Your task to perform on an android device: turn off notifications in google photos Image 0: 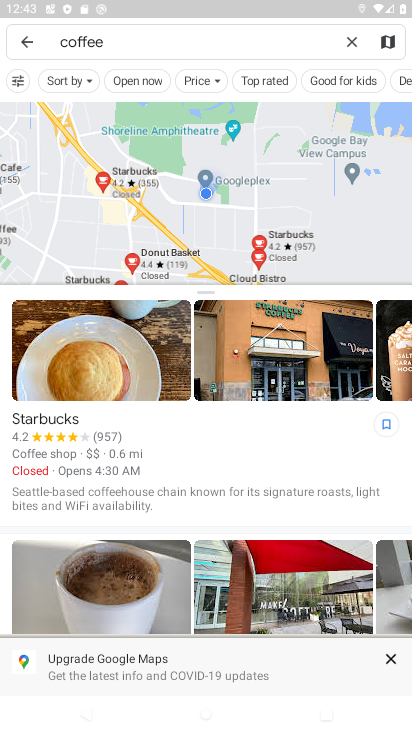
Step 0: press home button
Your task to perform on an android device: turn off notifications in google photos Image 1: 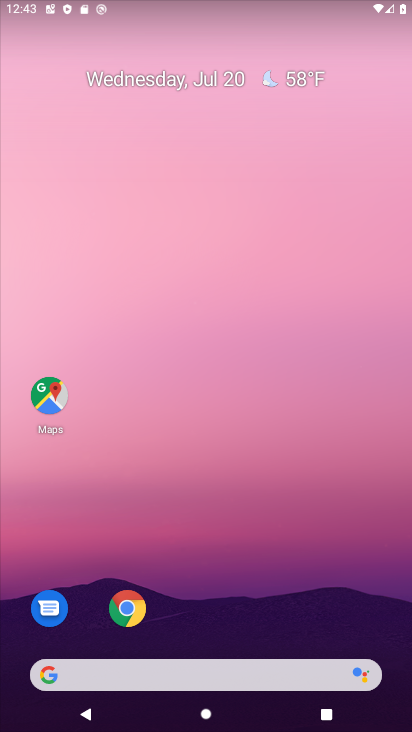
Step 1: drag from (205, 636) to (309, 130)
Your task to perform on an android device: turn off notifications in google photos Image 2: 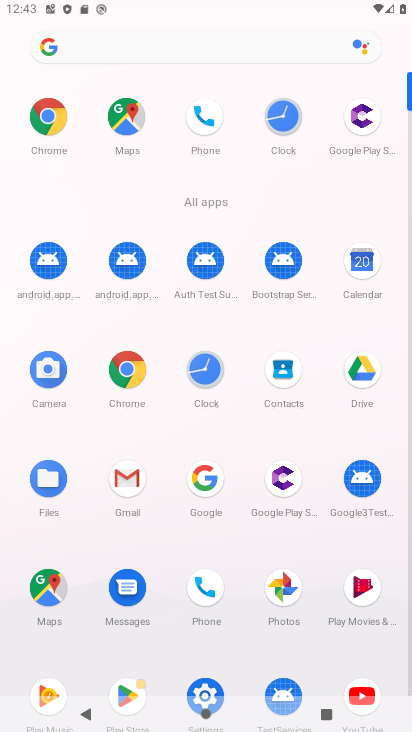
Step 2: drag from (255, 664) to (309, 330)
Your task to perform on an android device: turn off notifications in google photos Image 3: 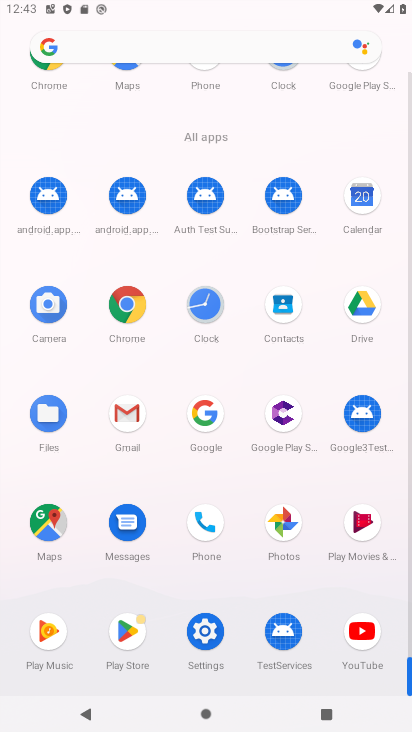
Step 3: click (284, 524)
Your task to perform on an android device: turn off notifications in google photos Image 4: 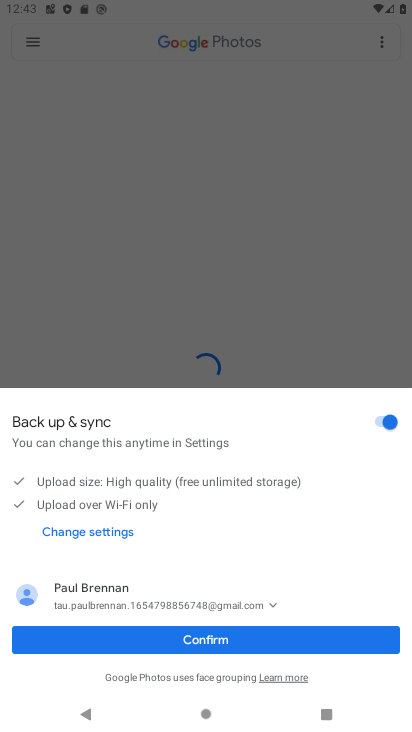
Step 4: click (238, 652)
Your task to perform on an android device: turn off notifications in google photos Image 5: 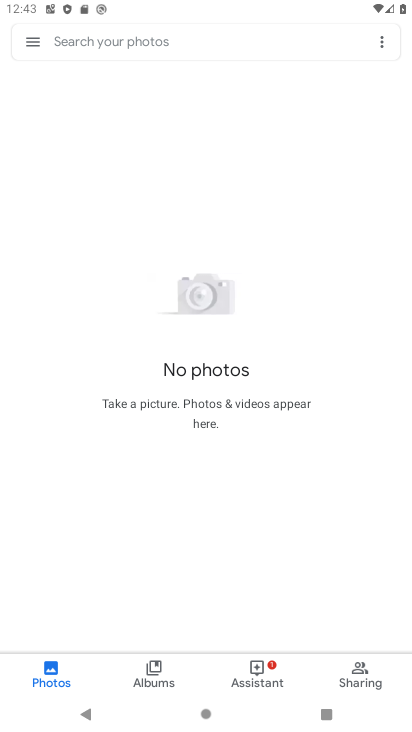
Step 5: click (35, 40)
Your task to perform on an android device: turn off notifications in google photos Image 6: 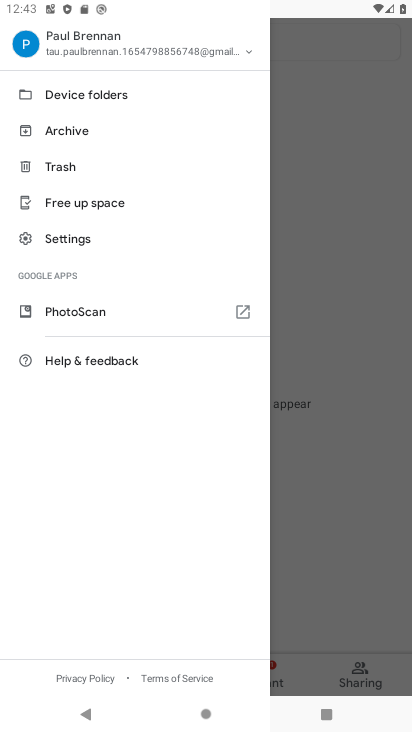
Step 6: click (122, 247)
Your task to perform on an android device: turn off notifications in google photos Image 7: 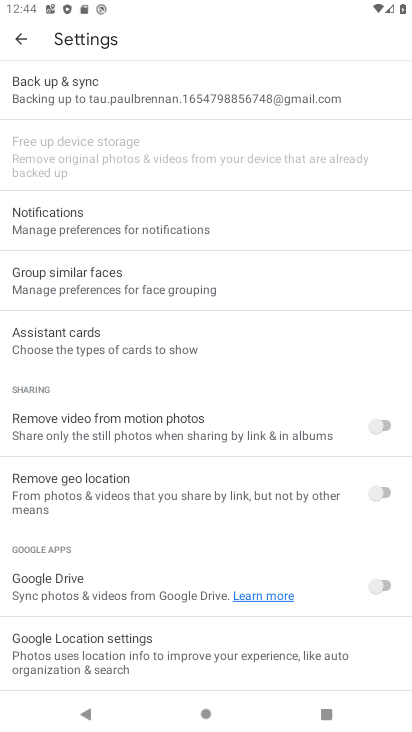
Step 7: click (121, 228)
Your task to perform on an android device: turn off notifications in google photos Image 8: 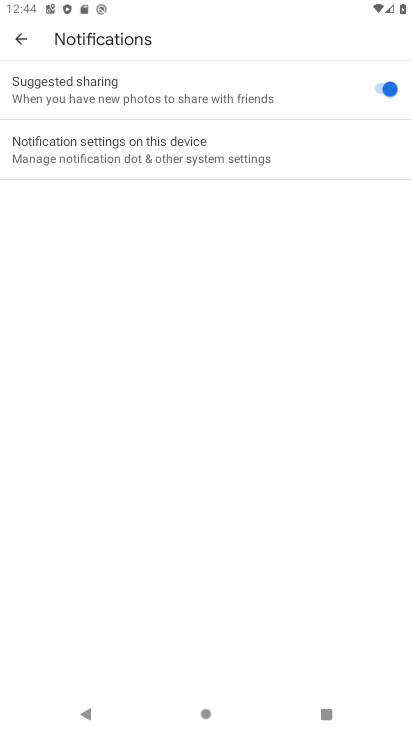
Step 8: click (350, 143)
Your task to perform on an android device: turn off notifications in google photos Image 9: 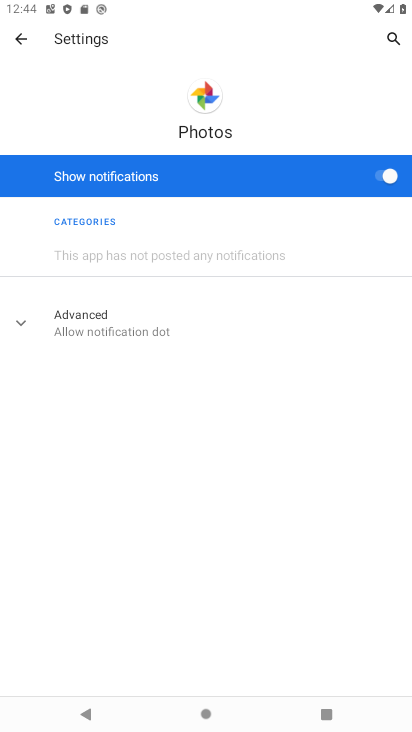
Step 9: click (380, 179)
Your task to perform on an android device: turn off notifications in google photos Image 10: 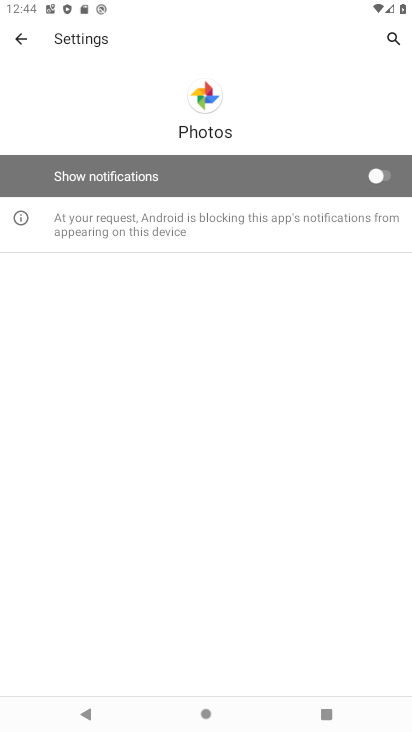
Step 10: task complete